Your task to perform on an android device: turn on priority inbox in the gmail app Image 0: 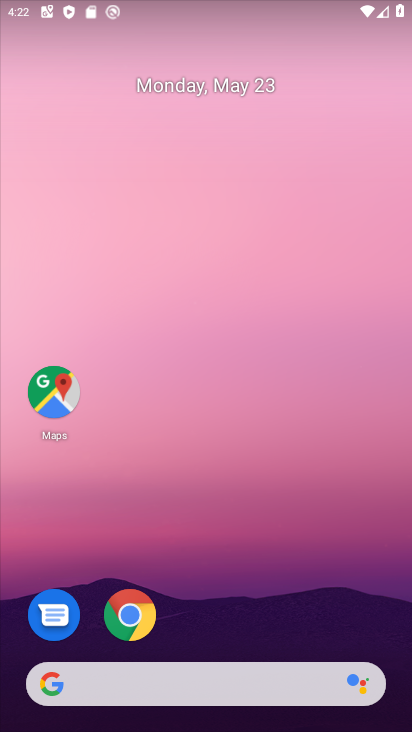
Step 0: drag from (192, 622) to (254, 94)
Your task to perform on an android device: turn on priority inbox in the gmail app Image 1: 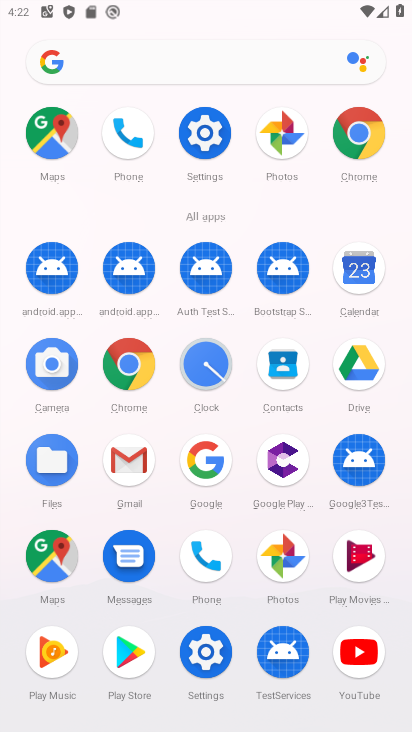
Step 1: click (106, 456)
Your task to perform on an android device: turn on priority inbox in the gmail app Image 2: 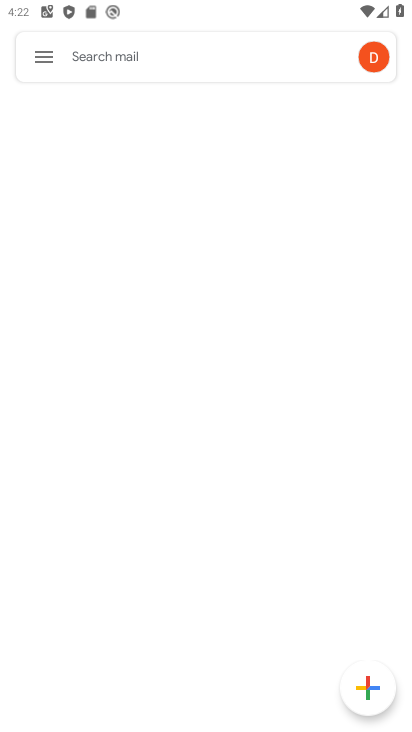
Step 2: click (45, 44)
Your task to perform on an android device: turn on priority inbox in the gmail app Image 3: 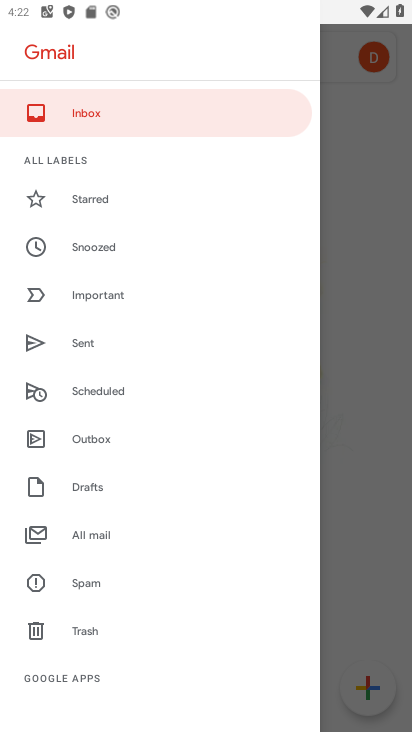
Step 3: drag from (133, 600) to (191, 152)
Your task to perform on an android device: turn on priority inbox in the gmail app Image 4: 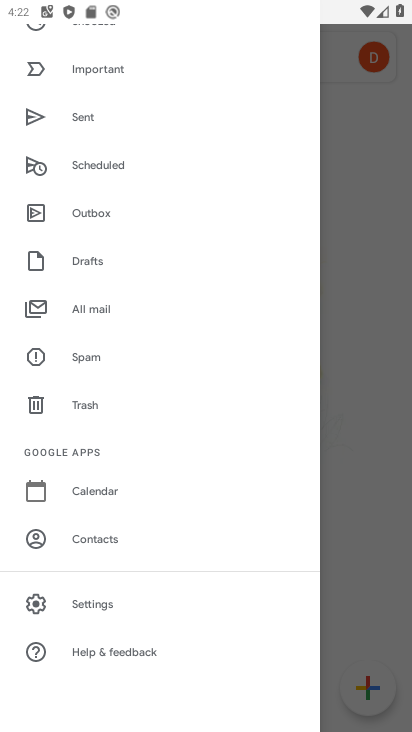
Step 4: click (82, 603)
Your task to perform on an android device: turn on priority inbox in the gmail app Image 5: 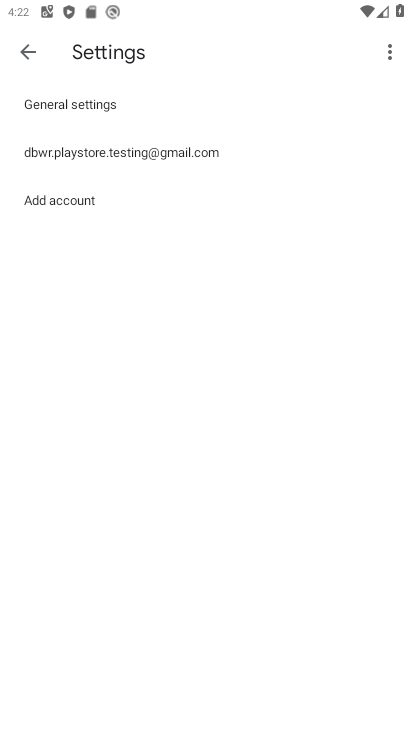
Step 5: click (98, 152)
Your task to perform on an android device: turn on priority inbox in the gmail app Image 6: 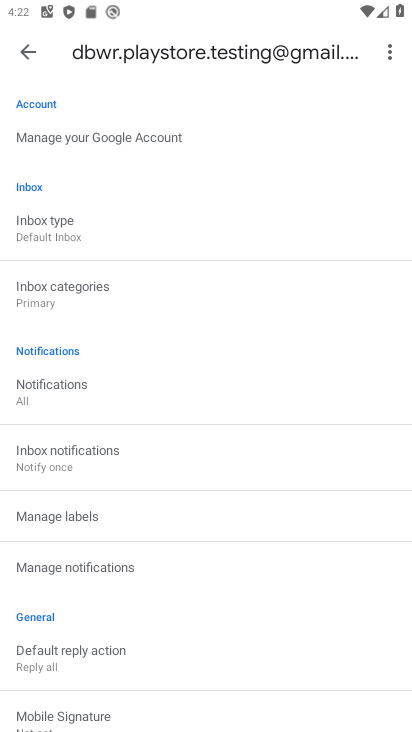
Step 6: click (65, 229)
Your task to perform on an android device: turn on priority inbox in the gmail app Image 7: 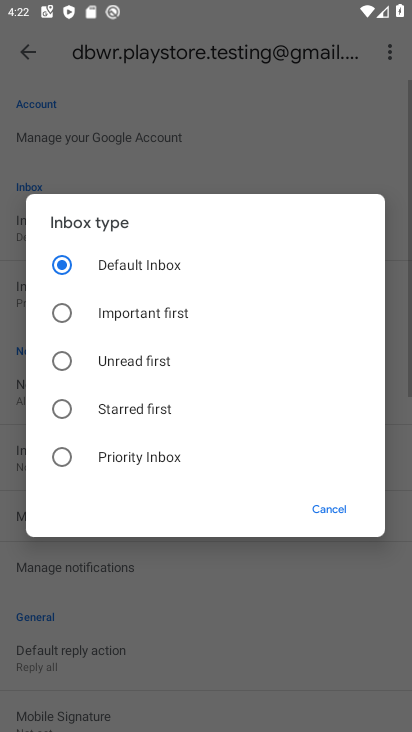
Step 7: click (66, 461)
Your task to perform on an android device: turn on priority inbox in the gmail app Image 8: 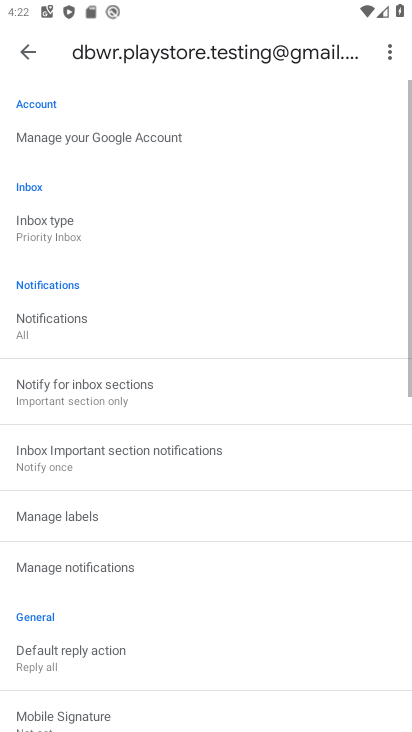
Step 8: task complete